Your task to perform on an android device: Open battery settings Image 0: 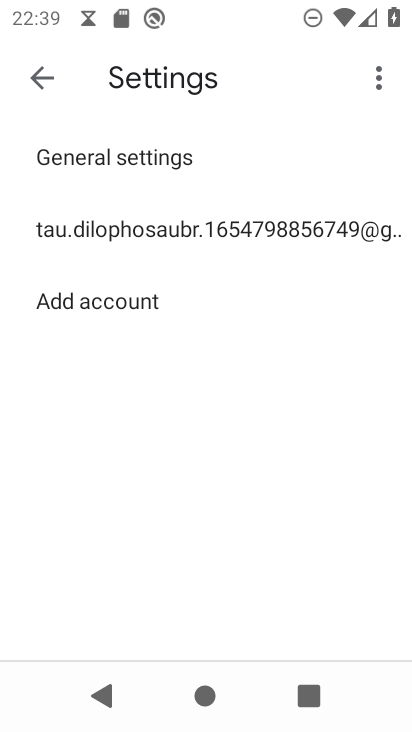
Step 0: press home button
Your task to perform on an android device: Open battery settings Image 1: 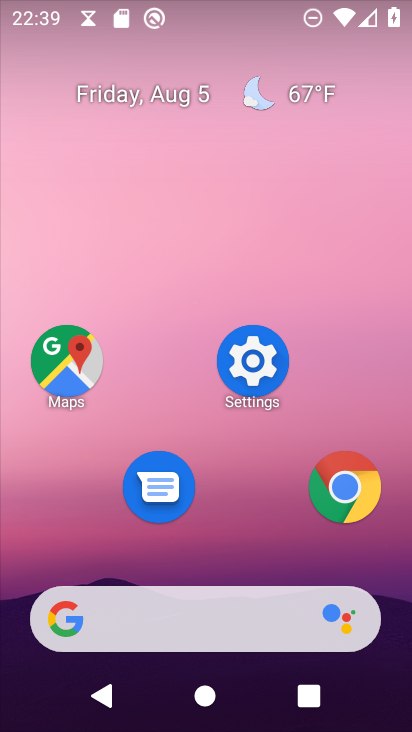
Step 1: click (257, 368)
Your task to perform on an android device: Open battery settings Image 2: 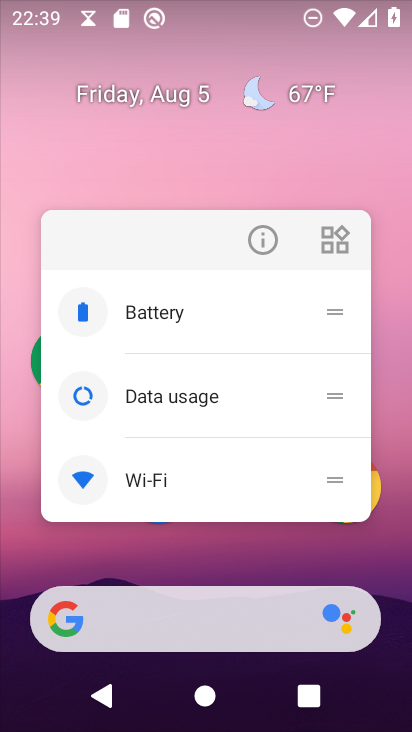
Step 2: click (384, 142)
Your task to perform on an android device: Open battery settings Image 3: 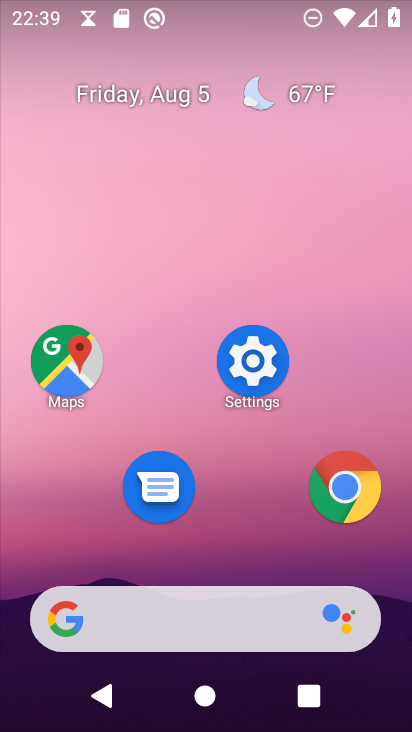
Step 3: click (258, 362)
Your task to perform on an android device: Open battery settings Image 4: 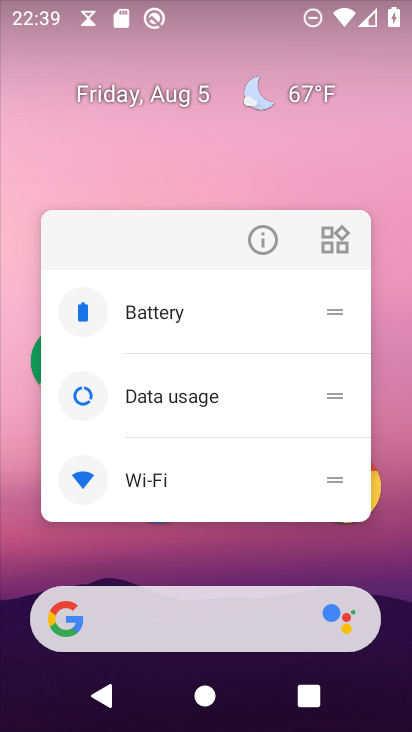
Step 4: click (343, 191)
Your task to perform on an android device: Open battery settings Image 5: 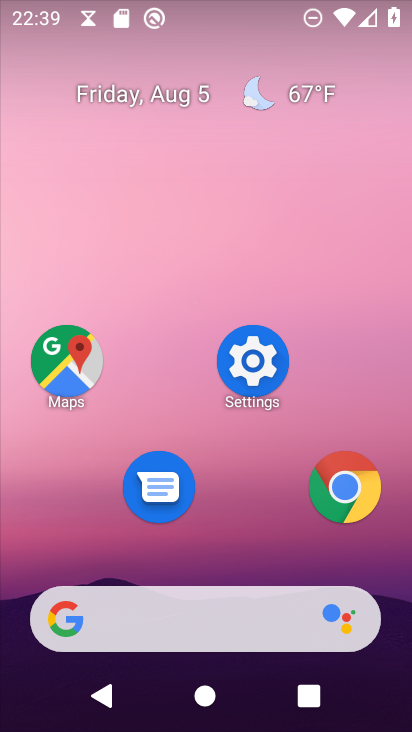
Step 5: click (254, 362)
Your task to perform on an android device: Open battery settings Image 6: 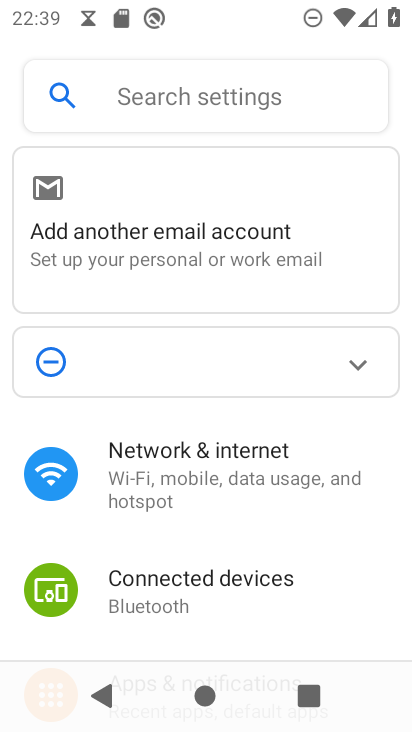
Step 6: drag from (253, 548) to (257, 259)
Your task to perform on an android device: Open battery settings Image 7: 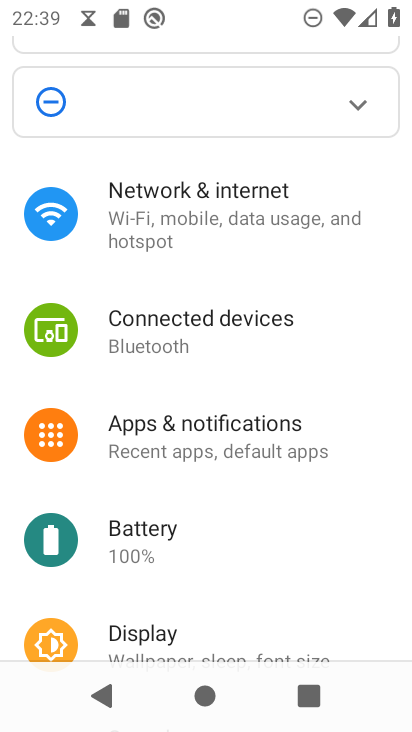
Step 7: click (154, 533)
Your task to perform on an android device: Open battery settings Image 8: 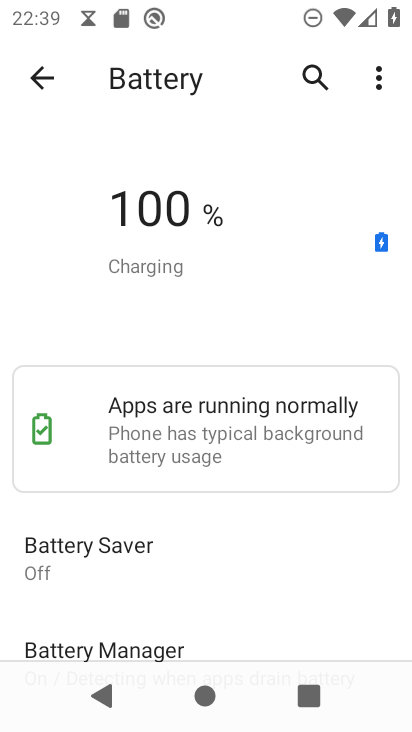
Step 8: task complete